Your task to perform on an android device: empty trash in the gmail app Image 0: 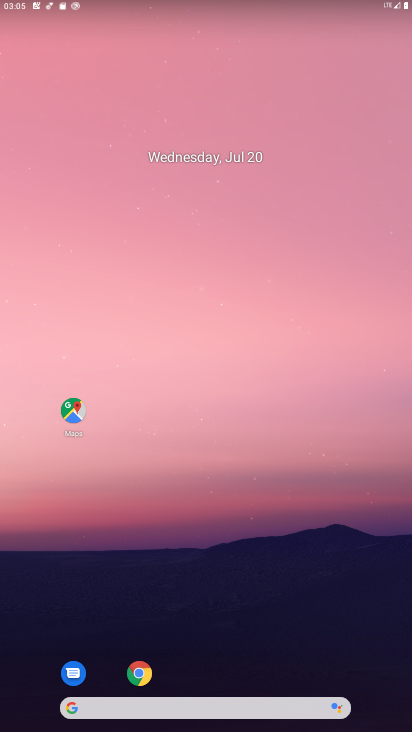
Step 0: drag from (264, 661) to (241, 1)
Your task to perform on an android device: empty trash in the gmail app Image 1: 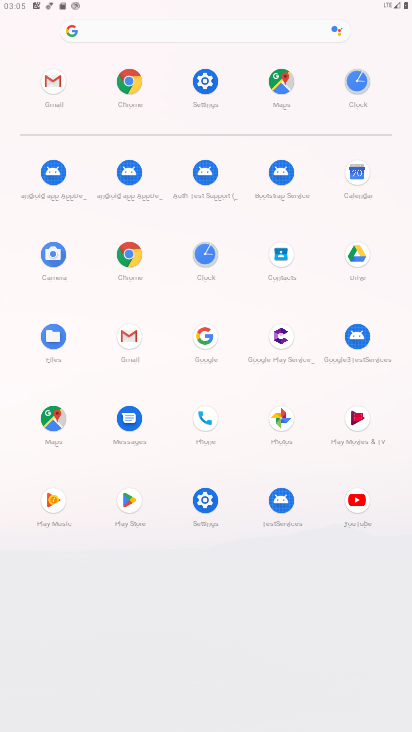
Step 1: click (139, 336)
Your task to perform on an android device: empty trash in the gmail app Image 2: 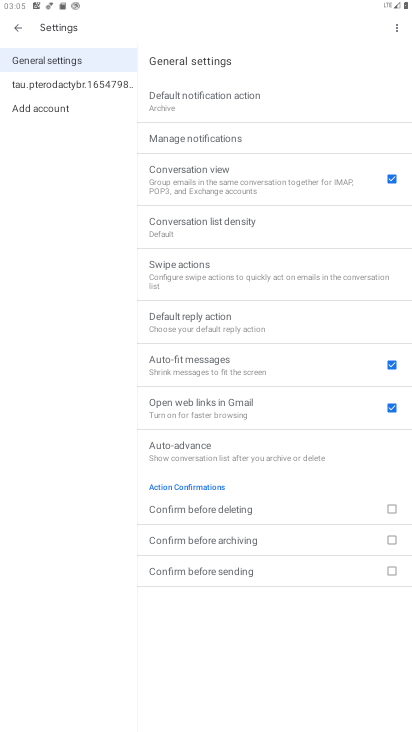
Step 2: click (16, 27)
Your task to perform on an android device: empty trash in the gmail app Image 3: 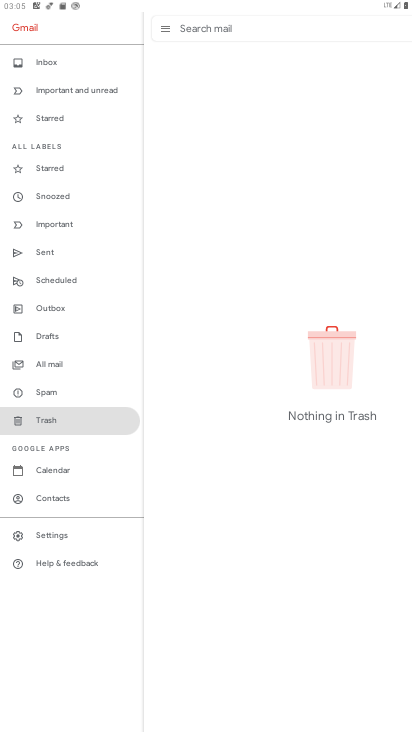
Step 3: task complete